Your task to perform on an android device: open app "LiveIn - Share Your Moment" (install if not already installed) Image 0: 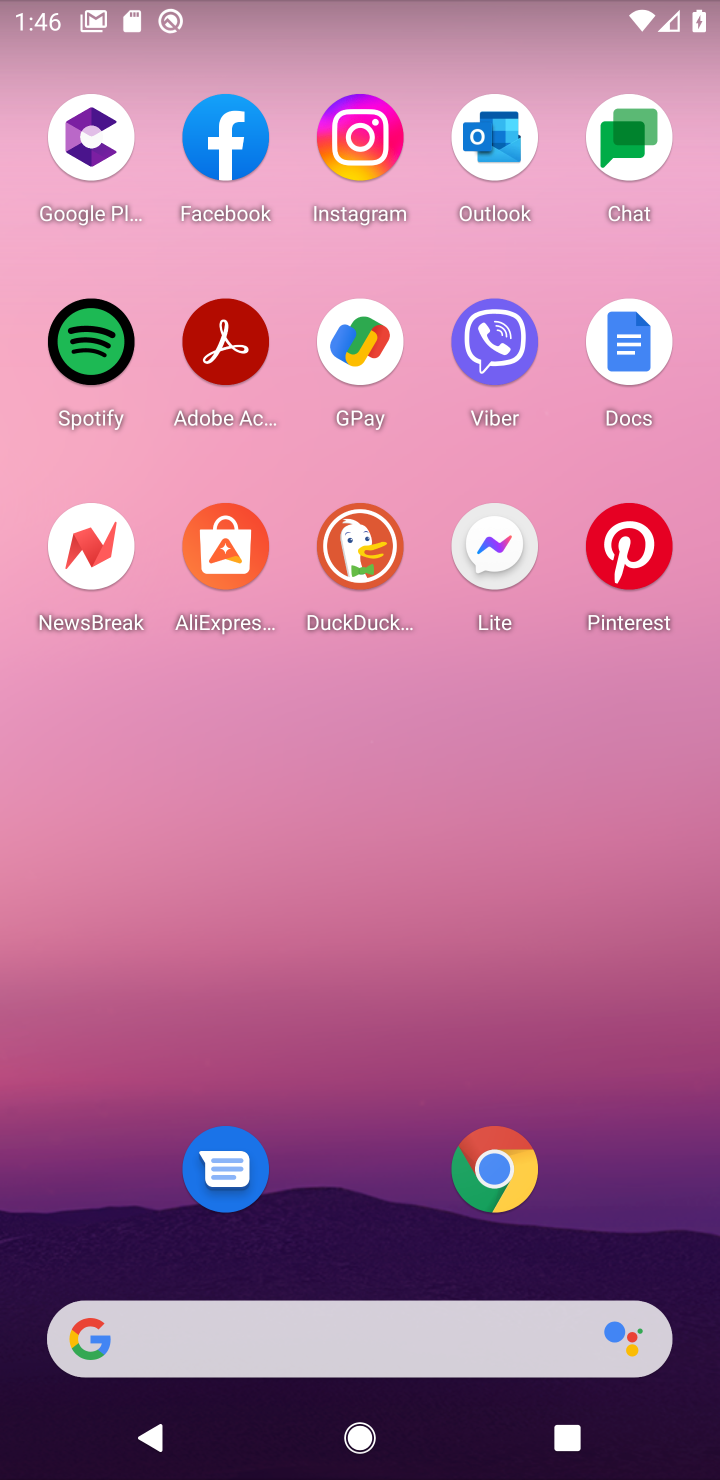
Step 0: drag from (350, 1227) to (389, 383)
Your task to perform on an android device: open app "LiveIn - Share Your Moment" (install if not already installed) Image 1: 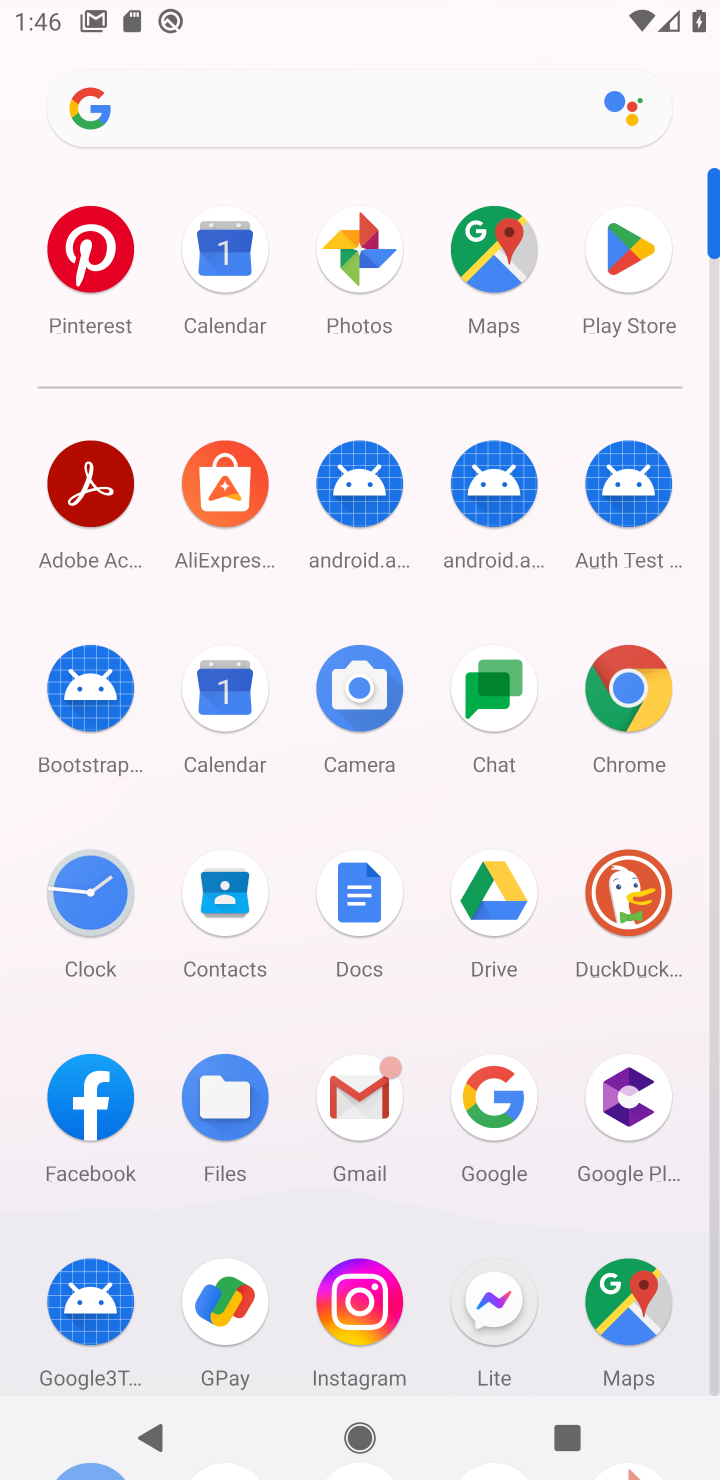
Step 1: click (628, 301)
Your task to perform on an android device: open app "LiveIn - Share Your Moment" (install if not already installed) Image 2: 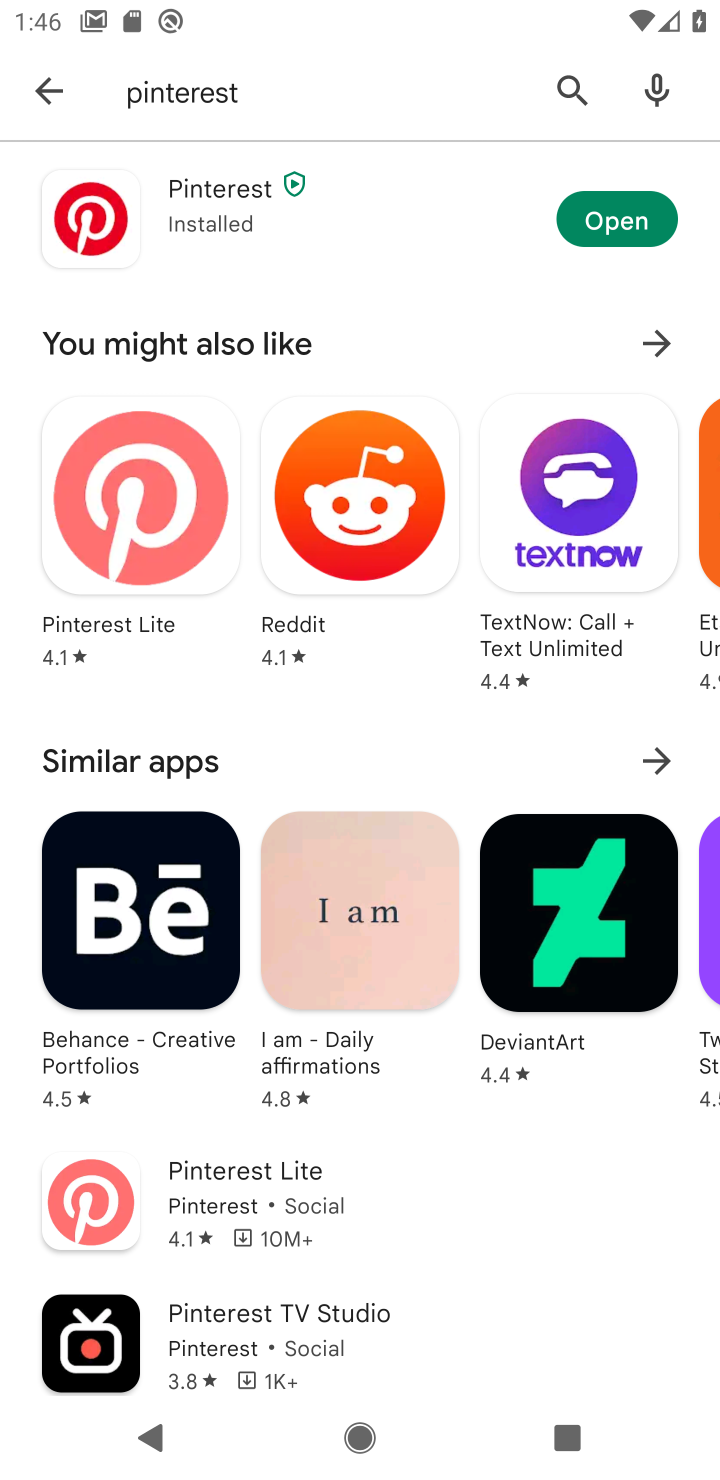
Step 2: click (51, 106)
Your task to perform on an android device: open app "LiveIn - Share Your Moment" (install if not already installed) Image 3: 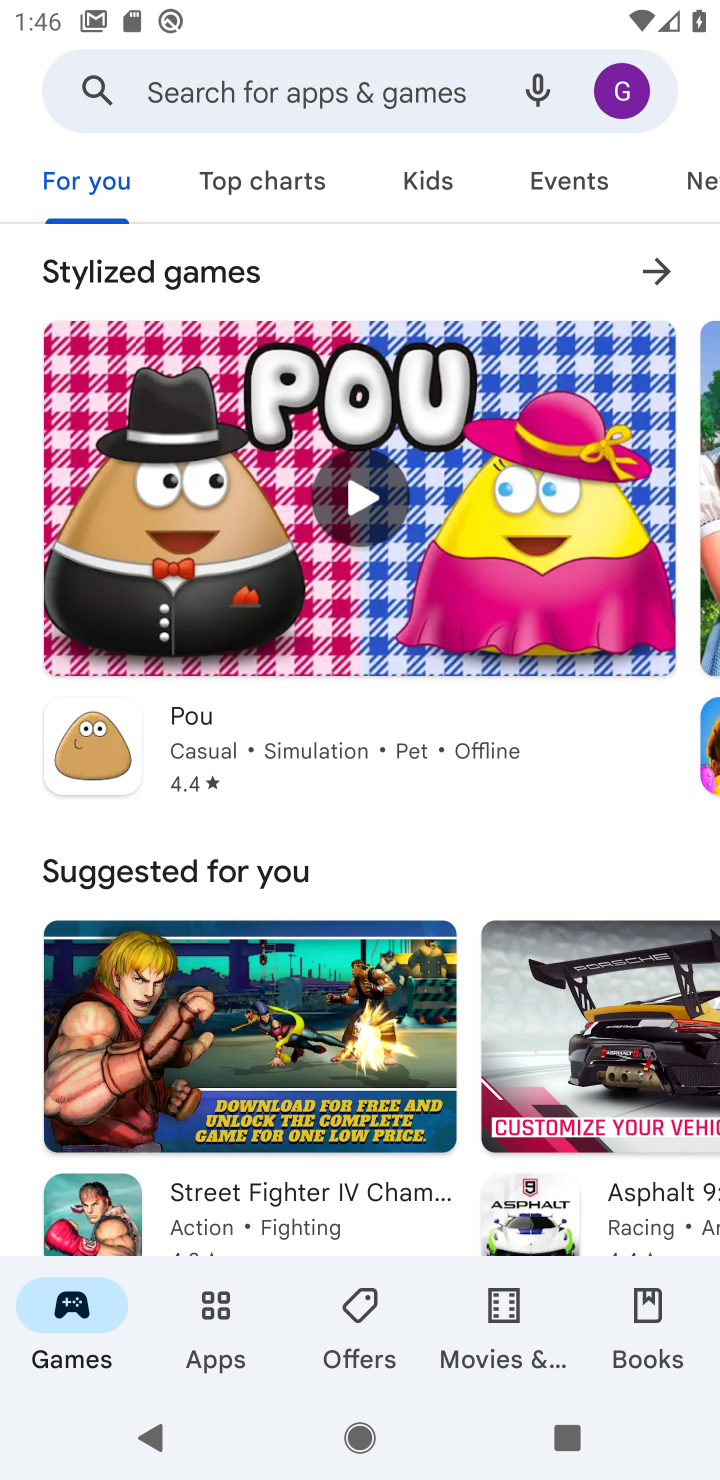
Step 3: click (327, 89)
Your task to perform on an android device: open app "LiveIn - Share Your Moment" (install if not already installed) Image 4: 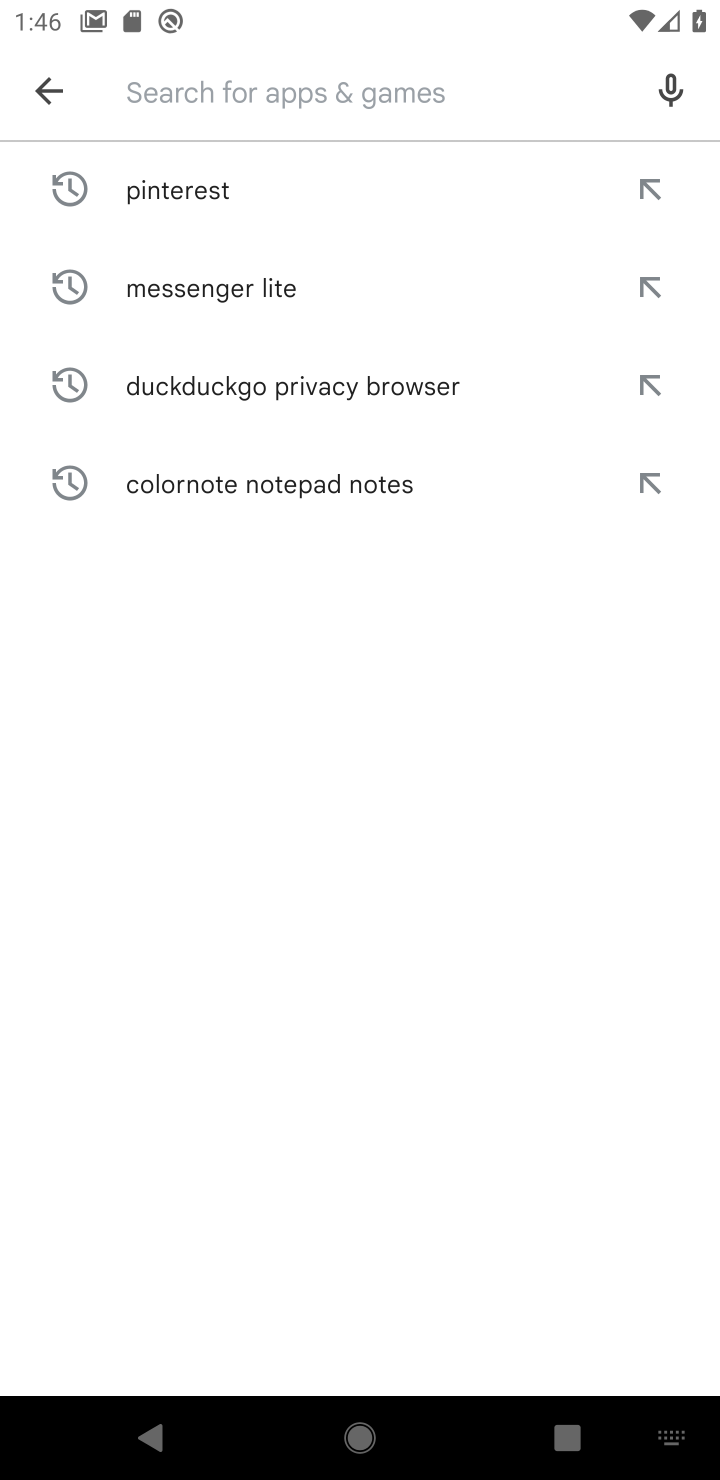
Step 4: type "LiveIn - Share Your Moment"
Your task to perform on an android device: open app "LiveIn - Share Your Moment" (install if not already installed) Image 5: 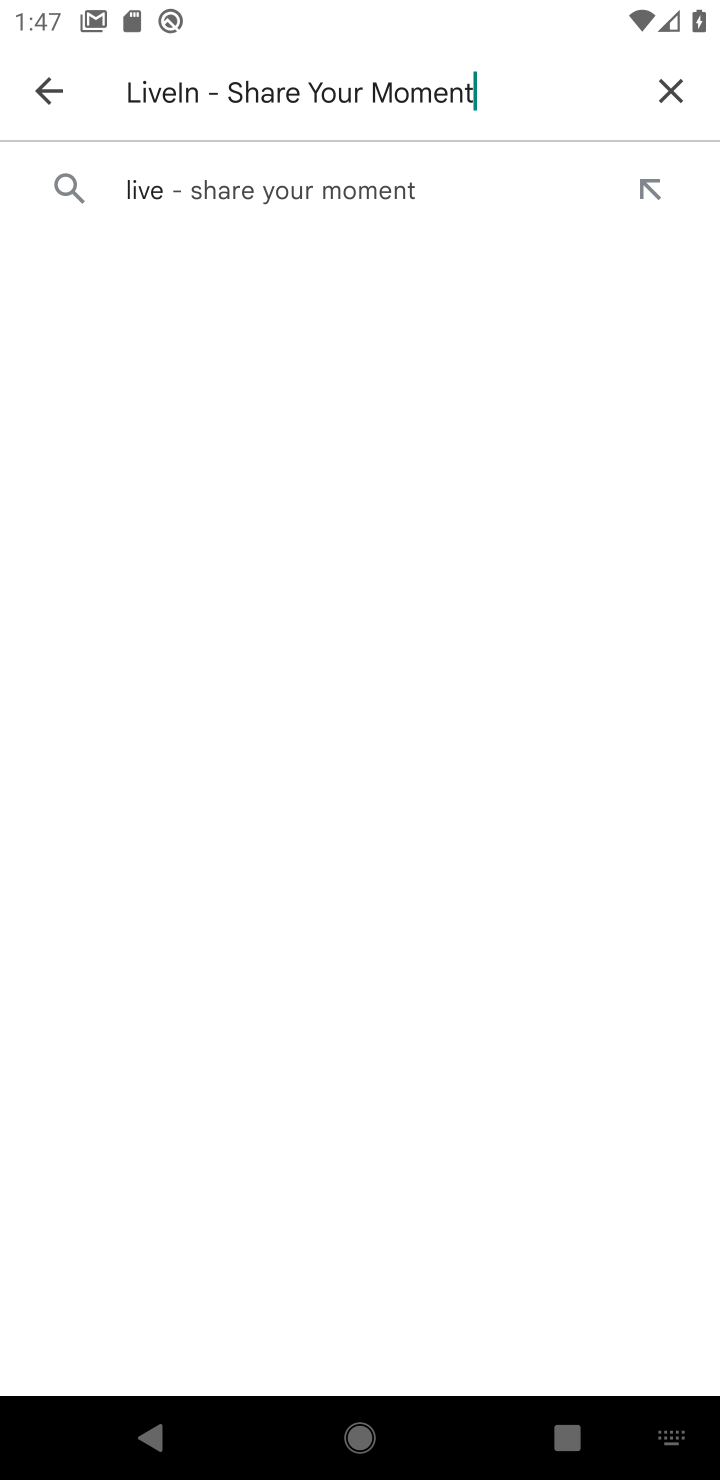
Step 5: click (297, 117)
Your task to perform on an android device: open app "LiveIn - Share Your Moment" (install if not already installed) Image 6: 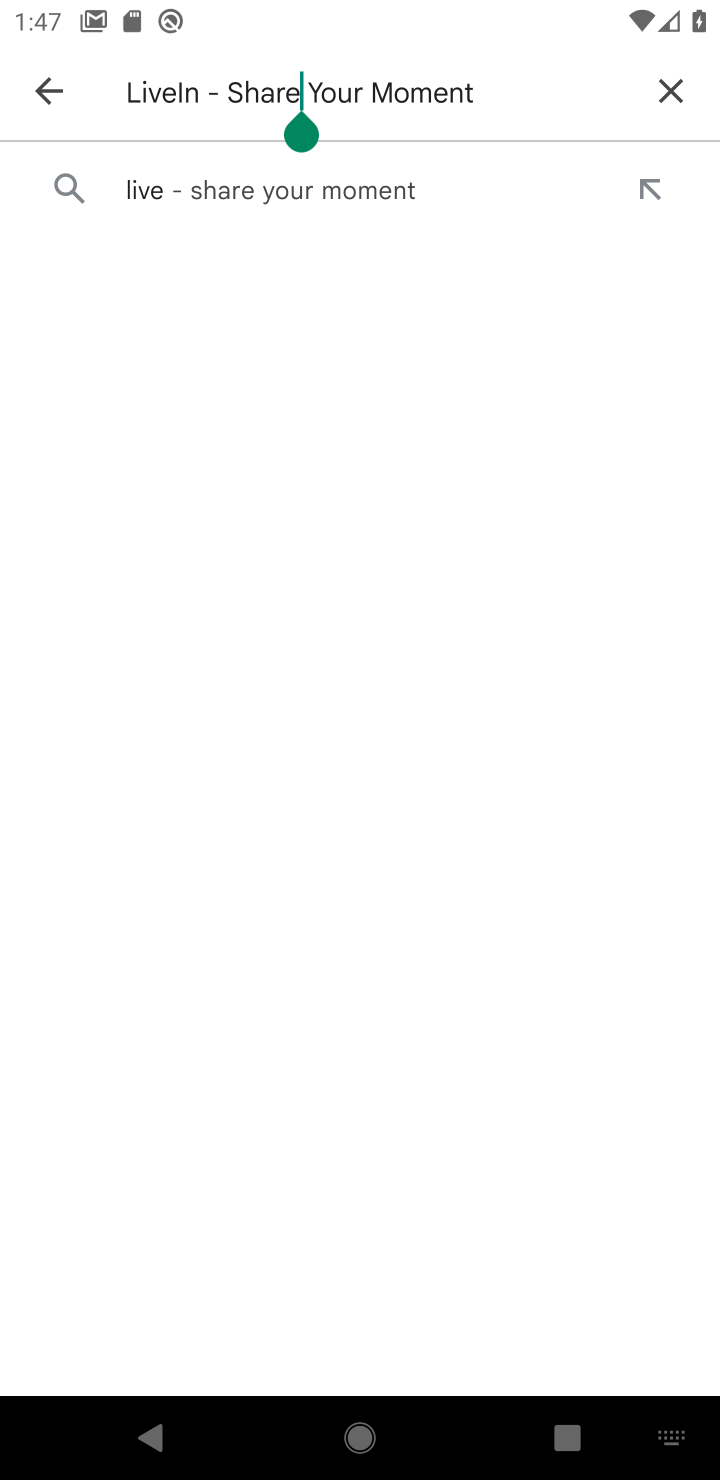
Step 6: click (236, 192)
Your task to perform on an android device: open app "LiveIn - Share Your Moment" (install if not already installed) Image 7: 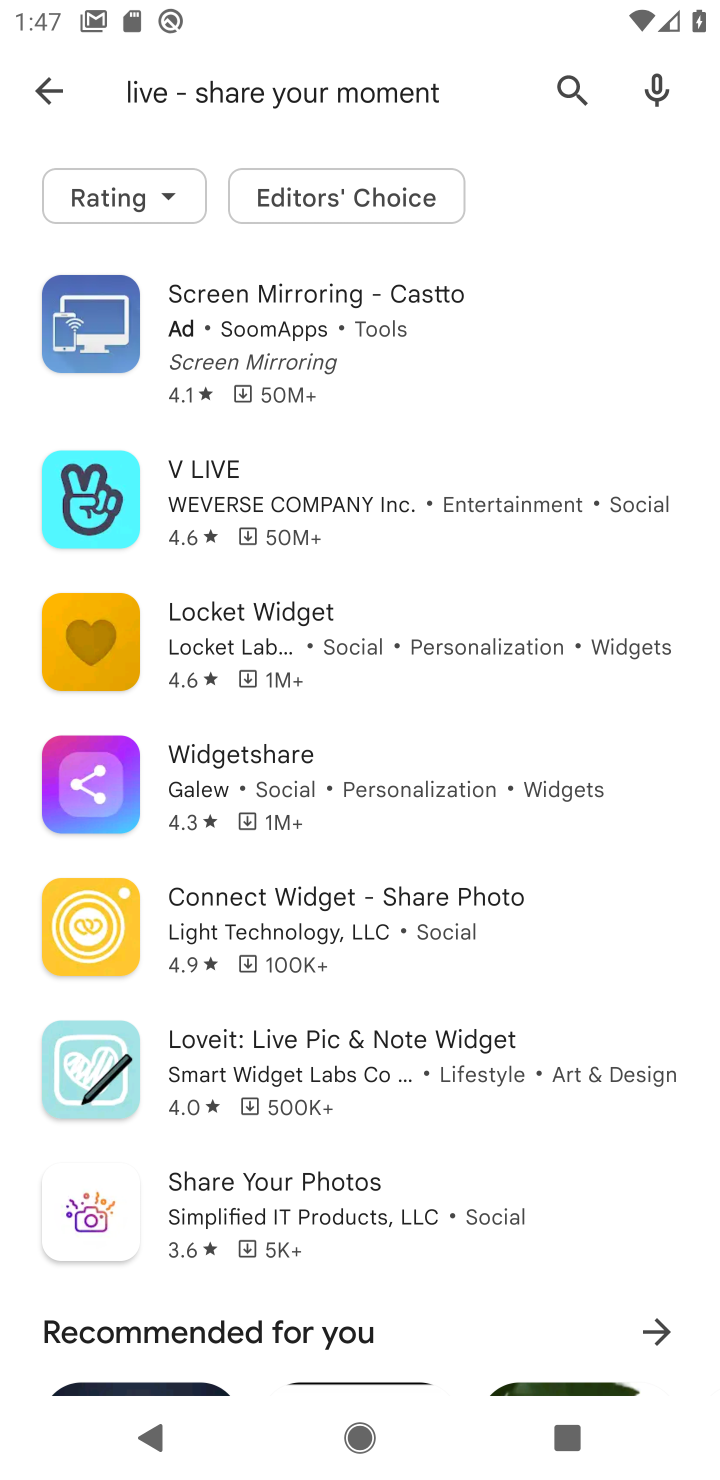
Step 7: task complete